Your task to perform on an android device: Open eBay Image 0: 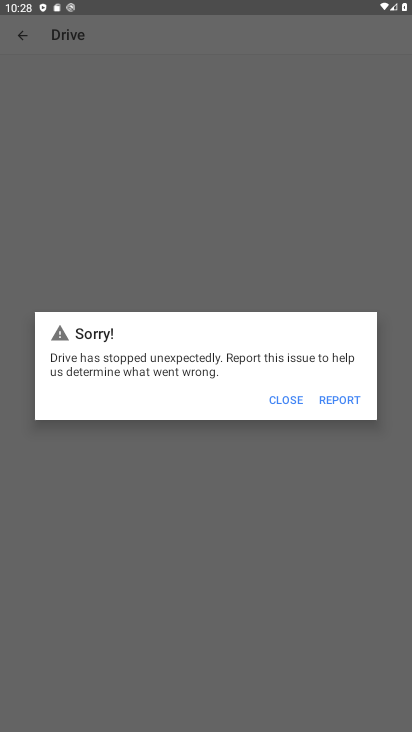
Step 0: press home button
Your task to perform on an android device: Open eBay Image 1: 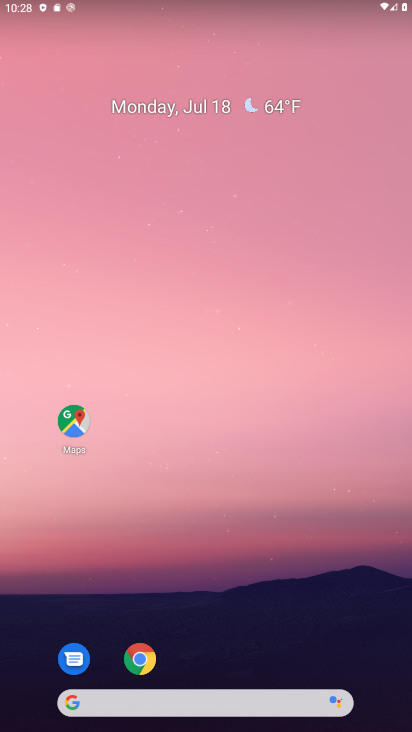
Step 1: drag from (294, 701) to (351, 26)
Your task to perform on an android device: Open eBay Image 2: 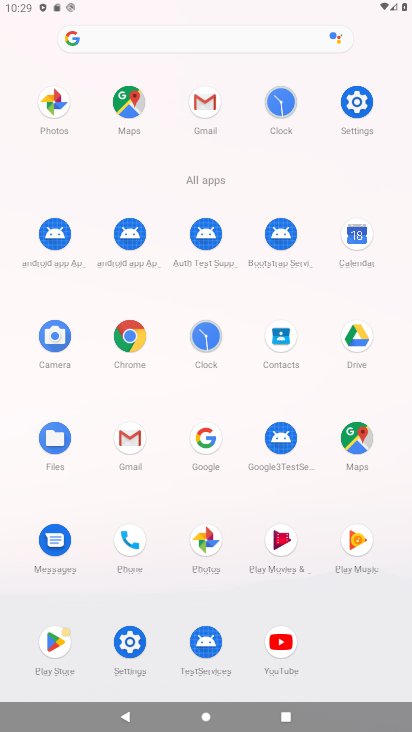
Step 2: click (136, 343)
Your task to perform on an android device: Open eBay Image 3: 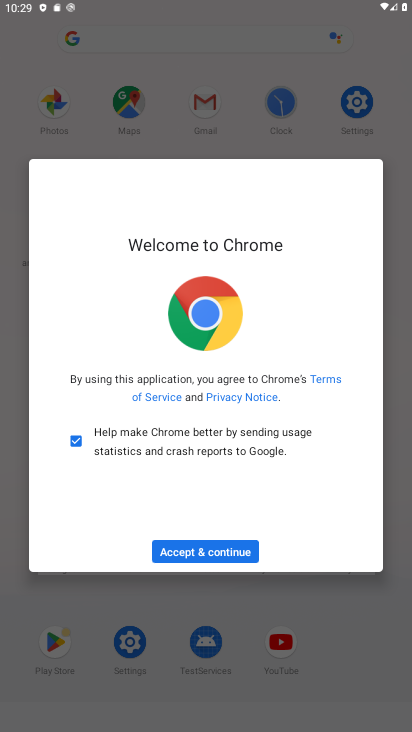
Step 3: click (180, 549)
Your task to perform on an android device: Open eBay Image 4: 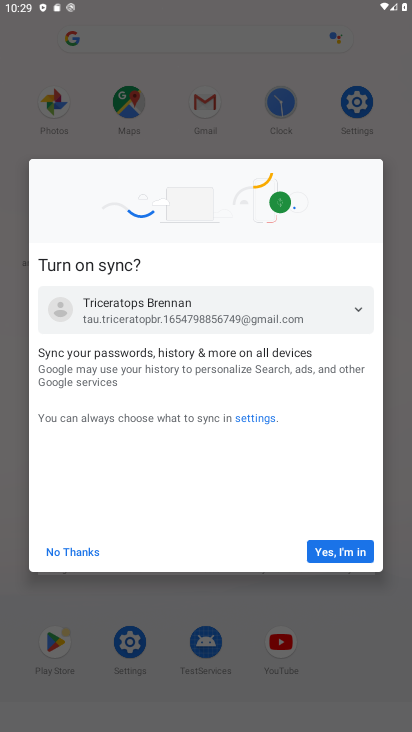
Step 4: click (94, 551)
Your task to perform on an android device: Open eBay Image 5: 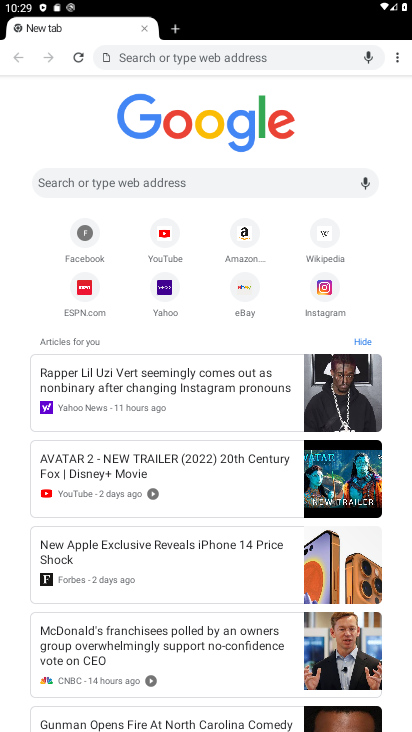
Step 5: click (277, 184)
Your task to perform on an android device: Open eBay Image 6: 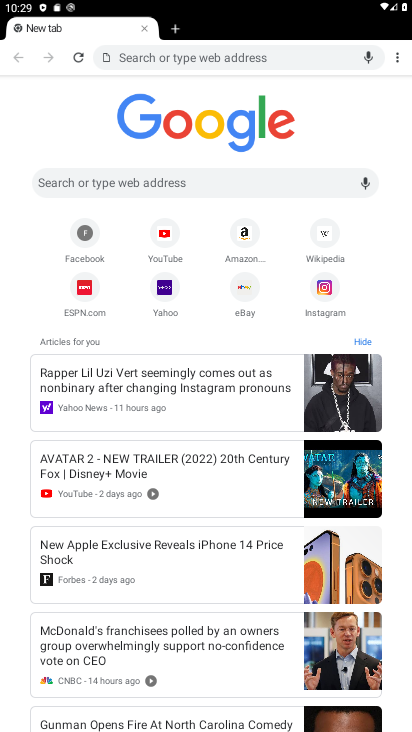
Step 6: click (277, 184)
Your task to perform on an android device: Open eBay Image 7: 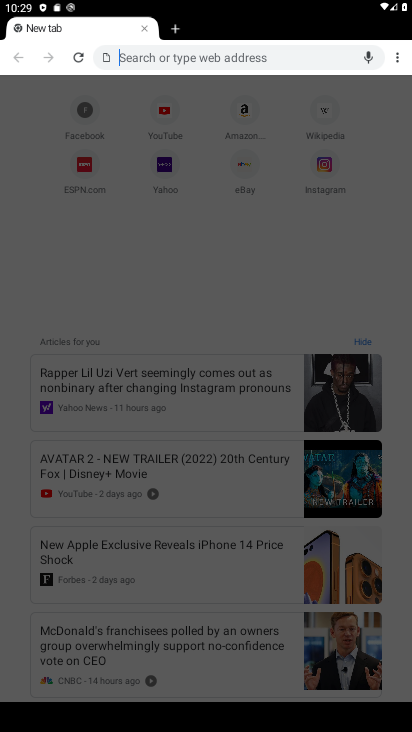
Step 7: type "ebay"
Your task to perform on an android device: Open eBay Image 8: 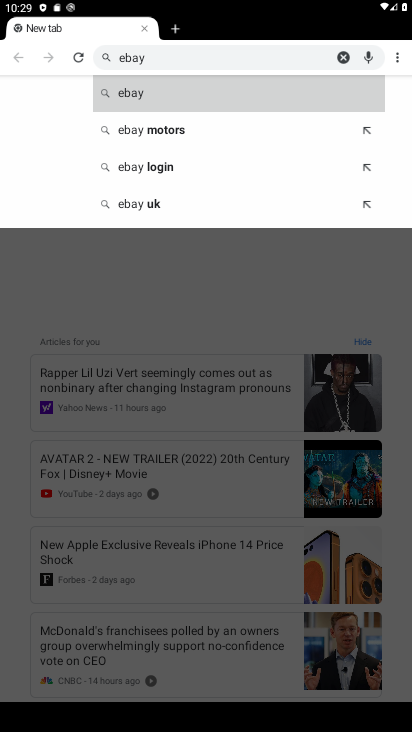
Step 8: click (210, 89)
Your task to perform on an android device: Open eBay Image 9: 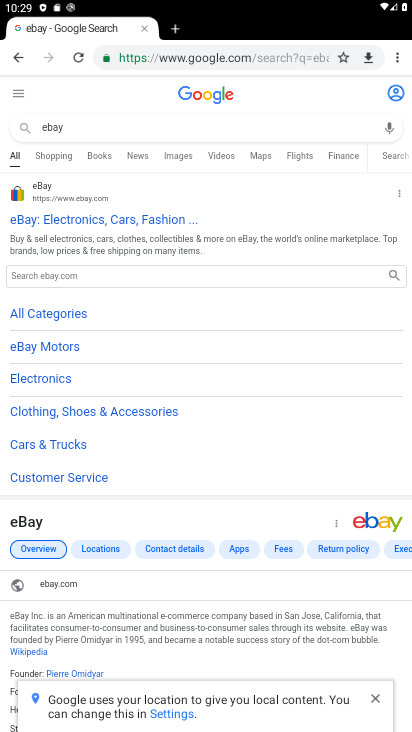
Step 9: task complete